Your task to perform on an android device: check battery use Image 0: 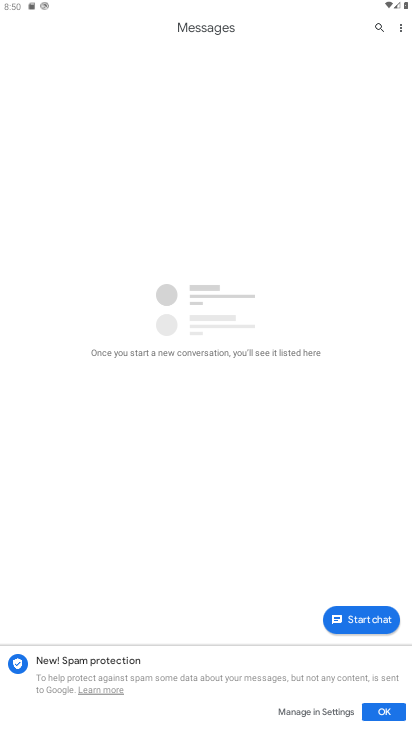
Step 0: press home button
Your task to perform on an android device: check battery use Image 1: 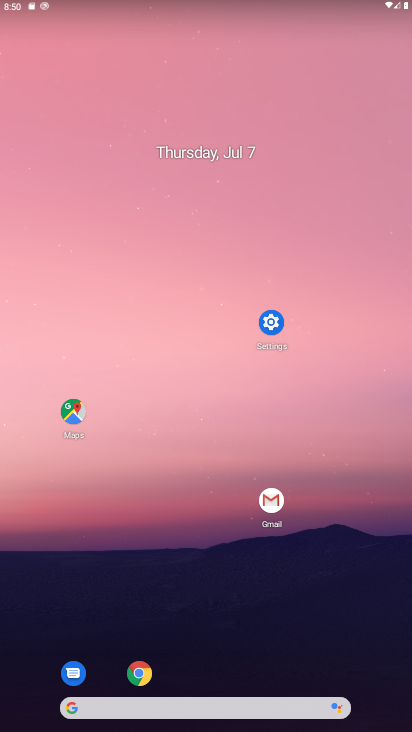
Step 1: drag from (392, 661) to (379, 181)
Your task to perform on an android device: check battery use Image 2: 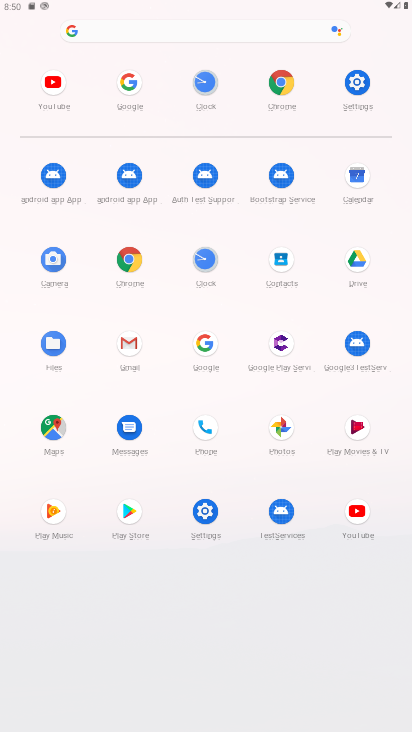
Step 2: click (348, 69)
Your task to perform on an android device: check battery use Image 3: 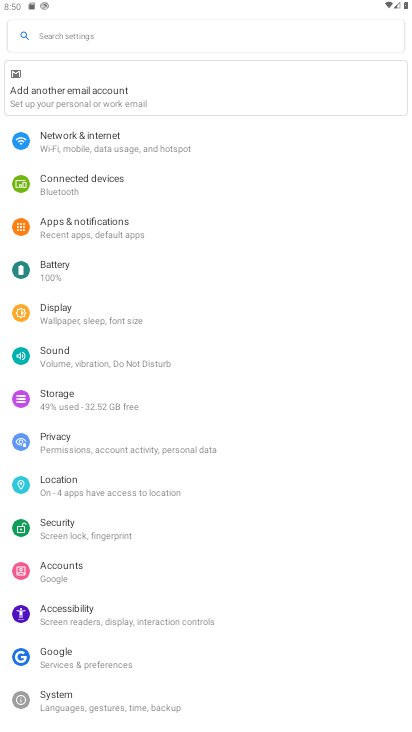
Step 3: click (63, 273)
Your task to perform on an android device: check battery use Image 4: 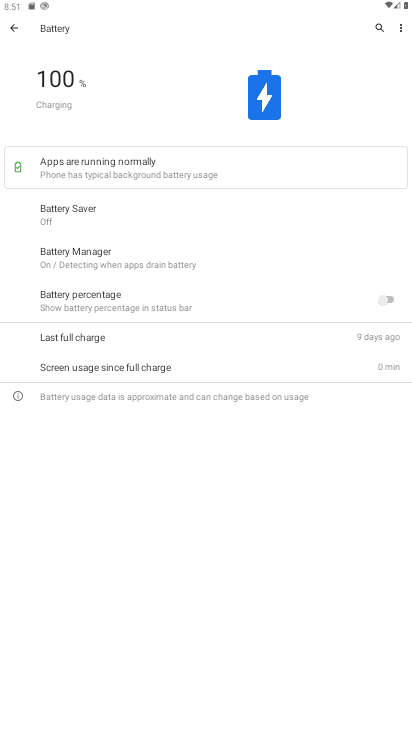
Step 4: click (396, 25)
Your task to perform on an android device: check battery use Image 5: 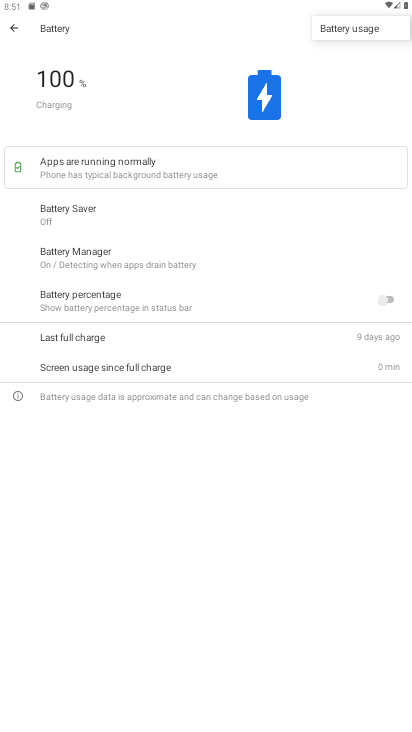
Step 5: click (389, 26)
Your task to perform on an android device: check battery use Image 6: 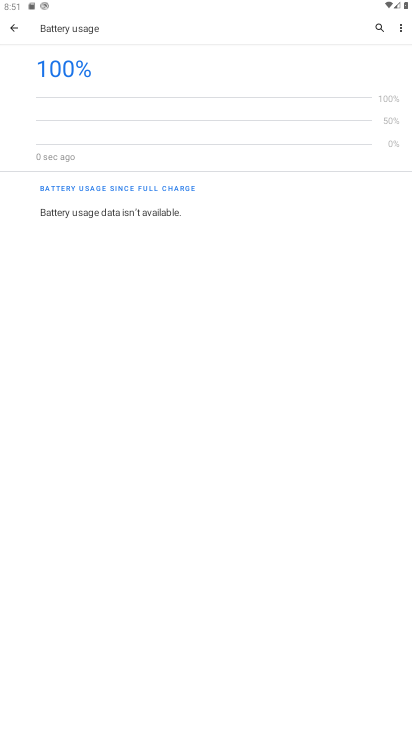
Step 6: task complete